Your task to perform on an android device: Toggle the flashlight Image 0: 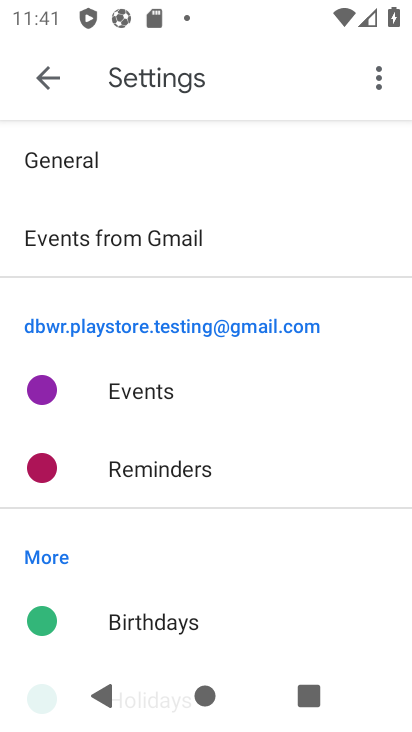
Step 0: press home button
Your task to perform on an android device: Toggle the flashlight Image 1: 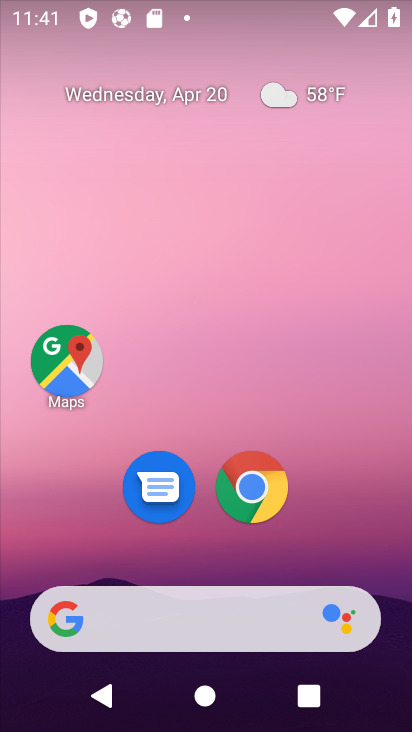
Step 1: task complete